Your task to perform on an android device: turn notification dots off Image 0: 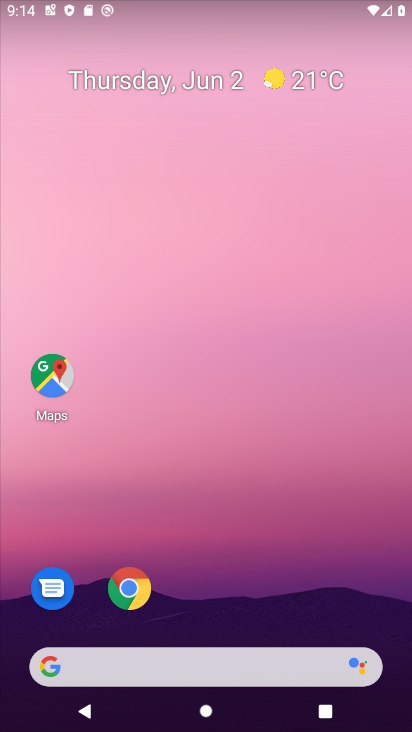
Step 0: drag from (198, 643) to (222, 83)
Your task to perform on an android device: turn notification dots off Image 1: 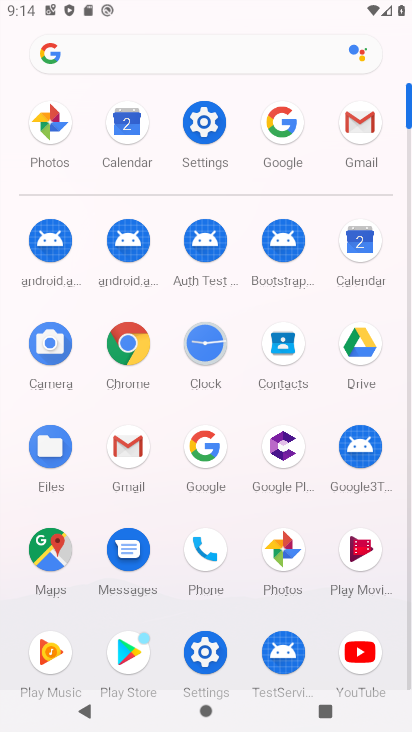
Step 1: click (206, 645)
Your task to perform on an android device: turn notification dots off Image 2: 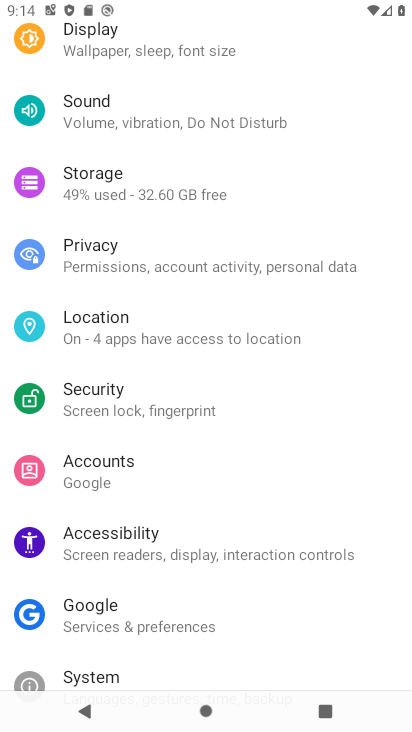
Step 2: drag from (125, 202) to (161, 725)
Your task to perform on an android device: turn notification dots off Image 3: 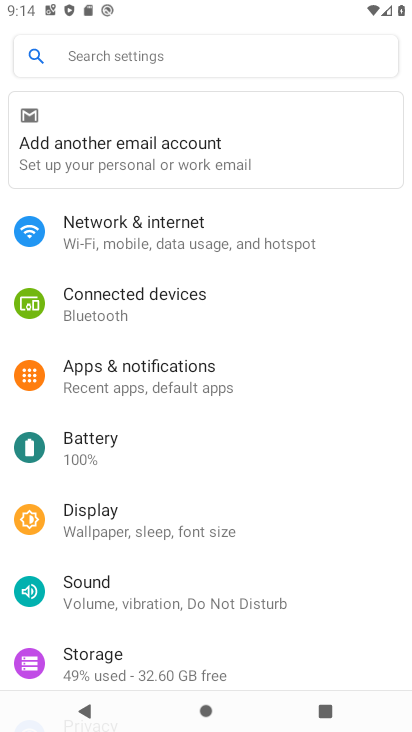
Step 3: click (151, 373)
Your task to perform on an android device: turn notification dots off Image 4: 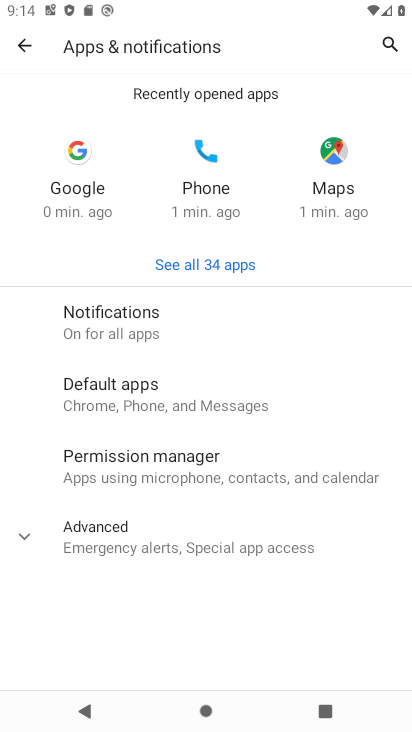
Step 4: click (183, 331)
Your task to perform on an android device: turn notification dots off Image 5: 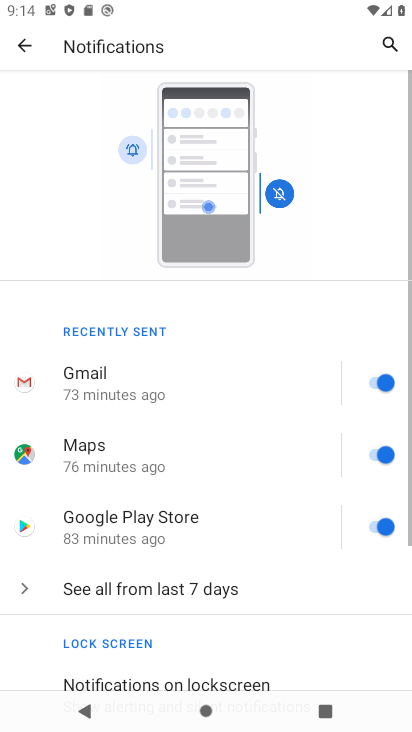
Step 5: drag from (236, 505) to (208, 27)
Your task to perform on an android device: turn notification dots off Image 6: 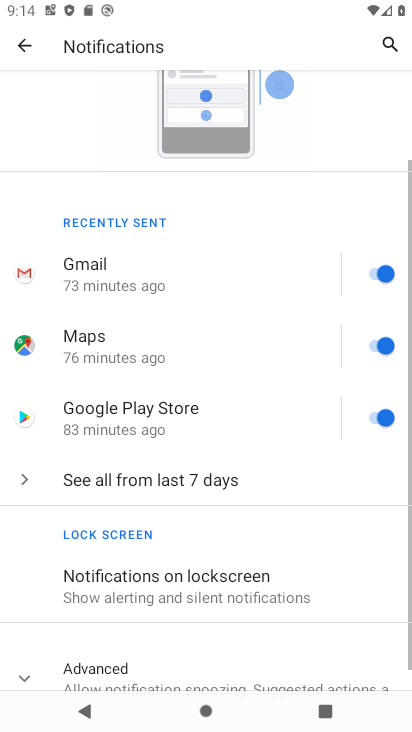
Step 6: click (188, 657)
Your task to perform on an android device: turn notification dots off Image 7: 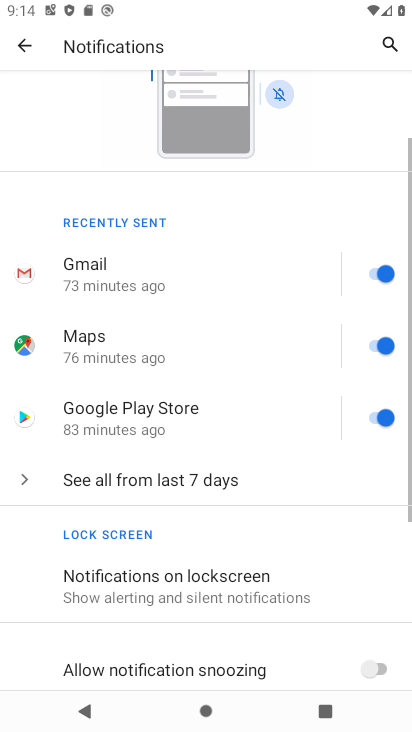
Step 7: drag from (206, 597) to (240, 67)
Your task to perform on an android device: turn notification dots off Image 8: 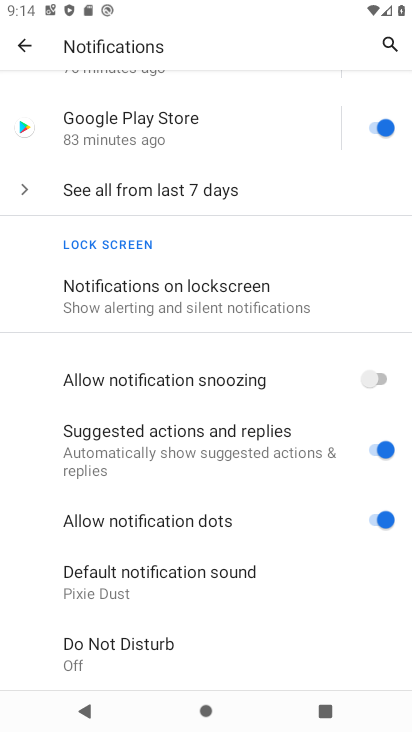
Step 8: click (371, 526)
Your task to perform on an android device: turn notification dots off Image 9: 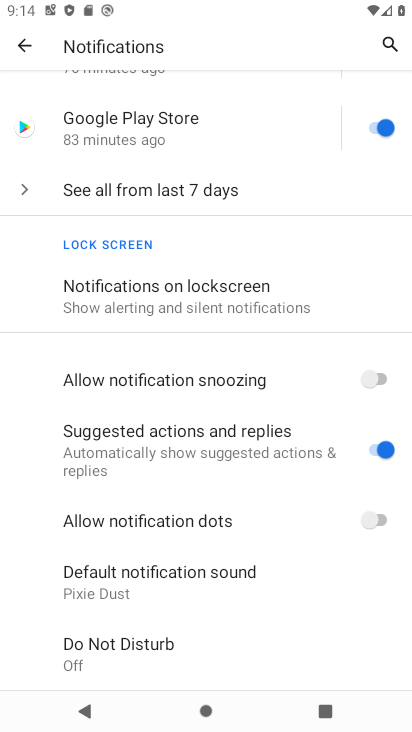
Step 9: task complete